Your task to perform on an android device: Open display settings Image 0: 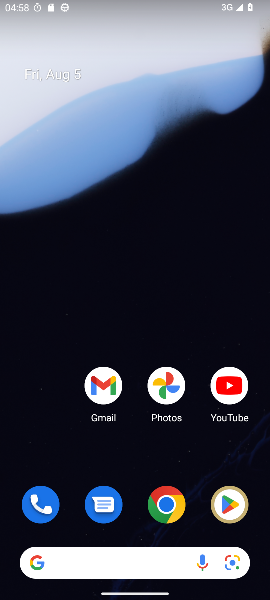
Step 0: drag from (18, 520) to (21, 352)
Your task to perform on an android device: Open display settings Image 1: 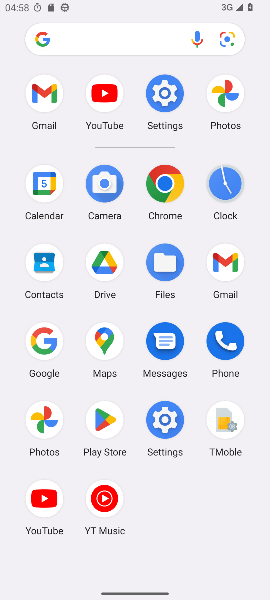
Step 1: click (170, 416)
Your task to perform on an android device: Open display settings Image 2: 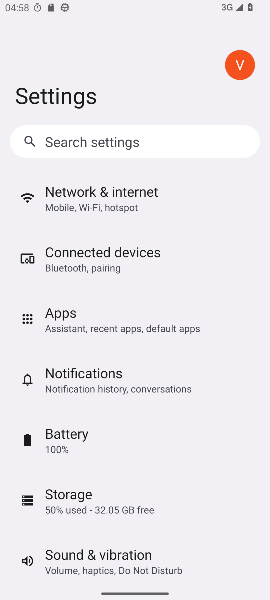
Step 2: drag from (166, 457) to (181, 210)
Your task to perform on an android device: Open display settings Image 3: 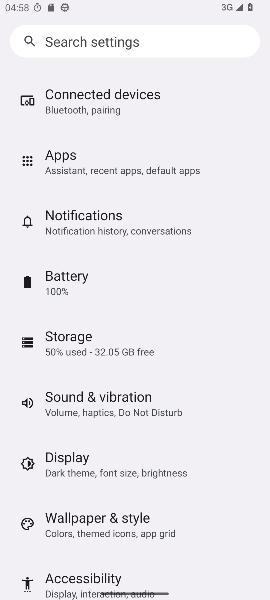
Step 3: click (81, 457)
Your task to perform on an android device: Open display settings Image 4: 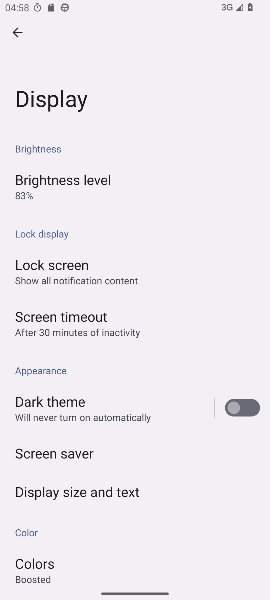
Step 4: click (95, 494)
Your task to perform on an android device: Open display settings Image 5: 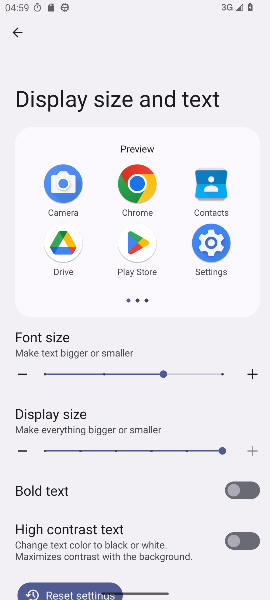
Step 5: task complete